Your task to perform on an android device: Go to accessibility settings Image 0: 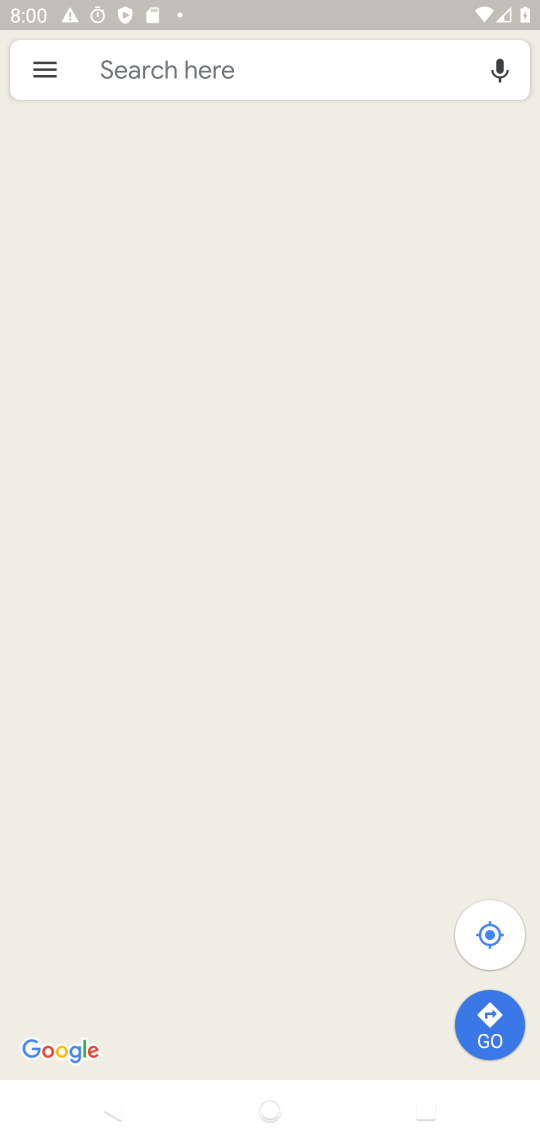
Step 0: press home button
Your task to perform on an android device: Go to accessibility settings Image 1: 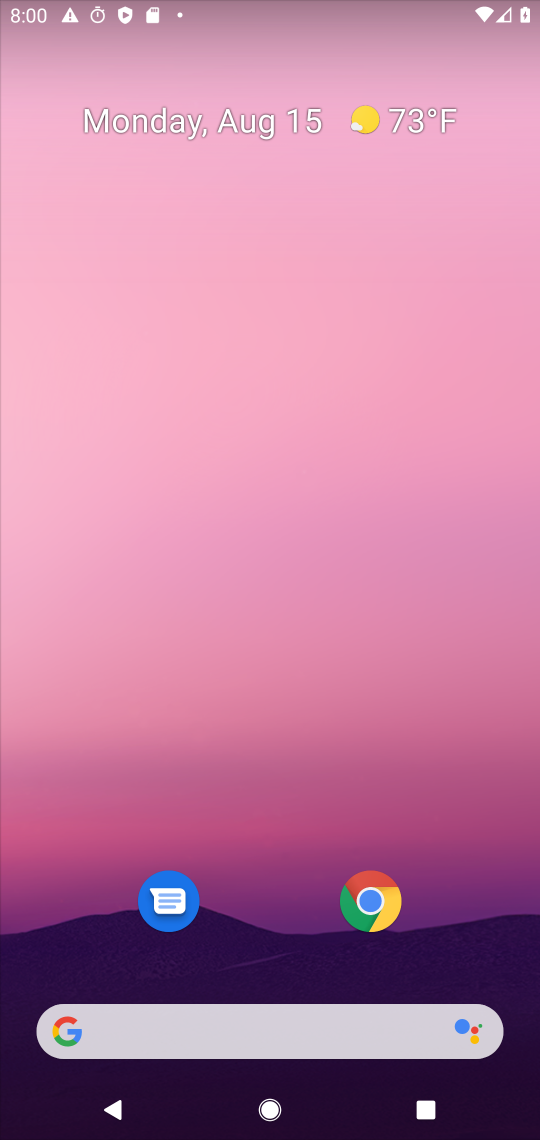
Step 1: drag from (240, 607) to (333, 86)
Your task to perform on an android device: Go to accessibility settings Image 2: 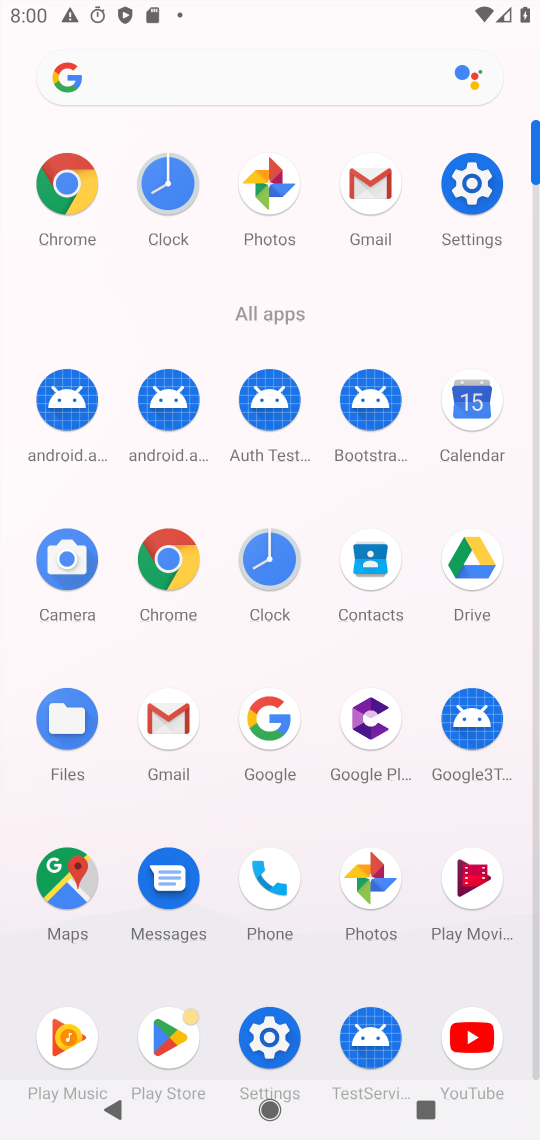
Step 2: click (264, 1030)
Your task to perform on an android device: Go to accessibility settings Image 3: 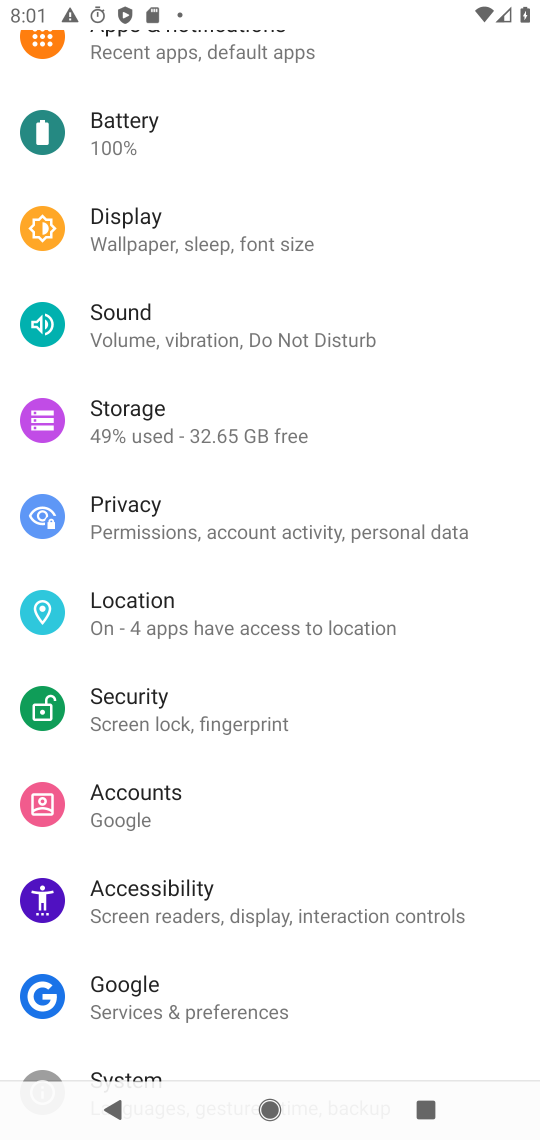
Step 3: click (176, 901)
Your task to perform on an android device: Go to accessibility settings Image 4: 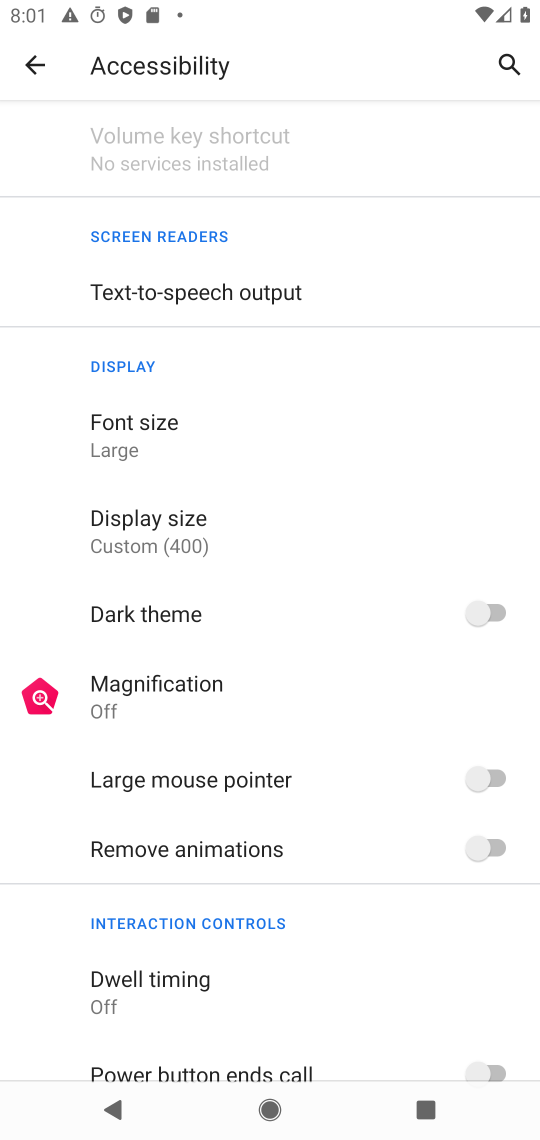
Step 4: task complete